Your task to perform on an android device: change keyboard looks Image 0: 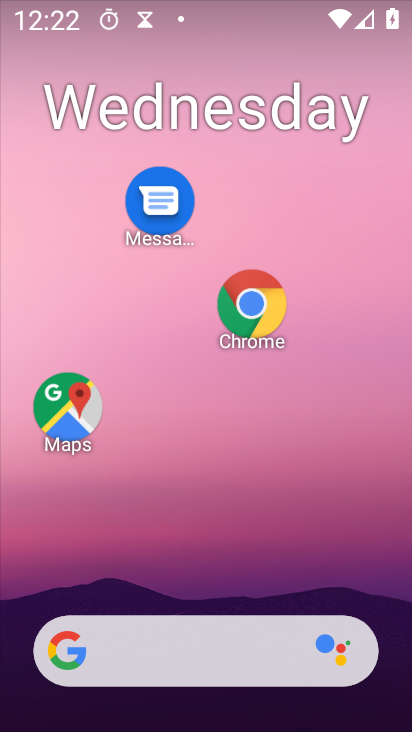
Step 0: drag from (242, 407) to (336, 123)
Your task to perform on an android device: change keyboard looks Image 1: 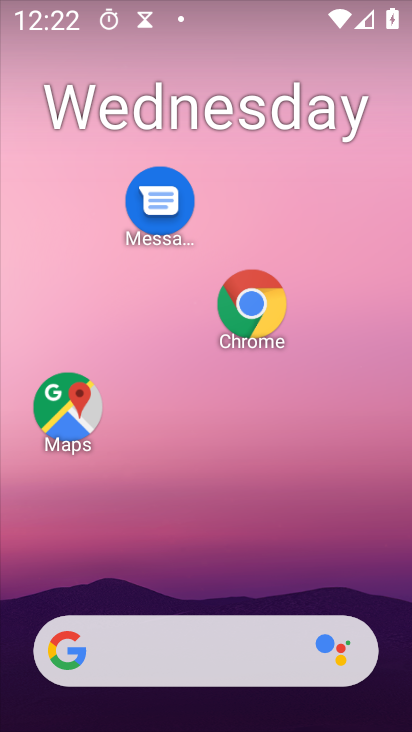
Step 1: drag from (313, 370) to (327, 169)
Your task to perform on an android device: change keyboard looks Image 2: 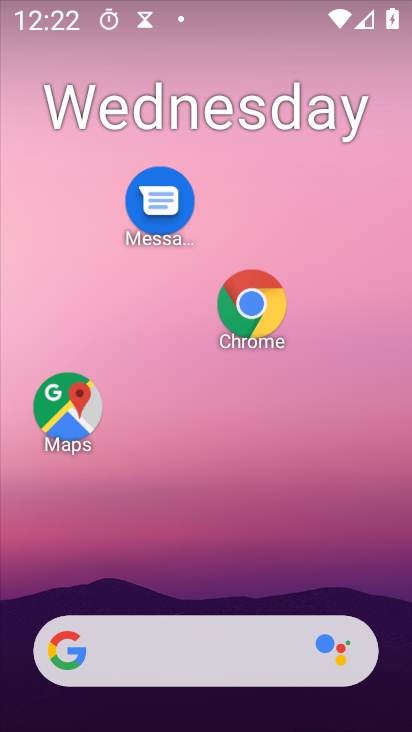
Step 2: drag from (345, 264) to (363, 177)
Your task to perform on an android device: change keyboard looks Image 3: 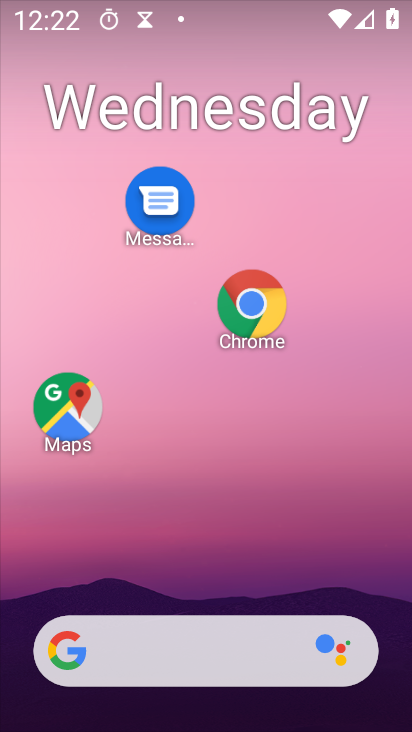
Step 3: drag from (258, 501) to (290, 228)
Your task to perform on an android device: change keyboard looks Image 4: 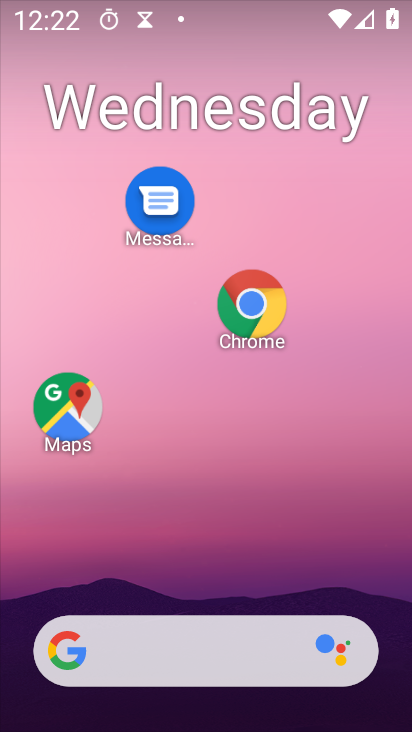
Step 4: drag from (290, 418) to (300, 217)
Your task to perform on an android device: change keyboard looks Image 5: 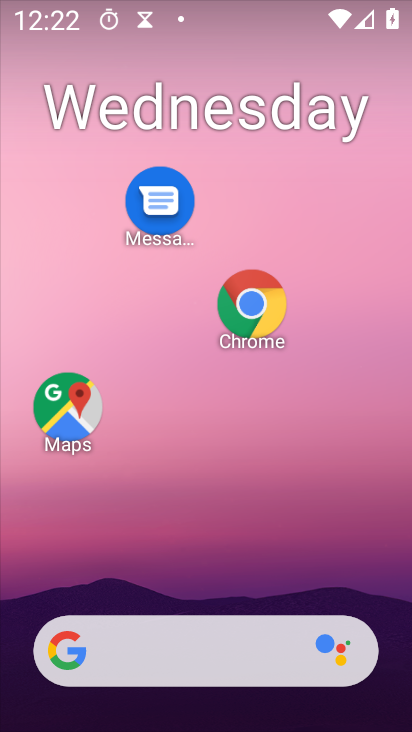
Step 5: drag from (238, 584) to (282, 145)
Your task to perform on an android device: change keyboard looks Image 6: 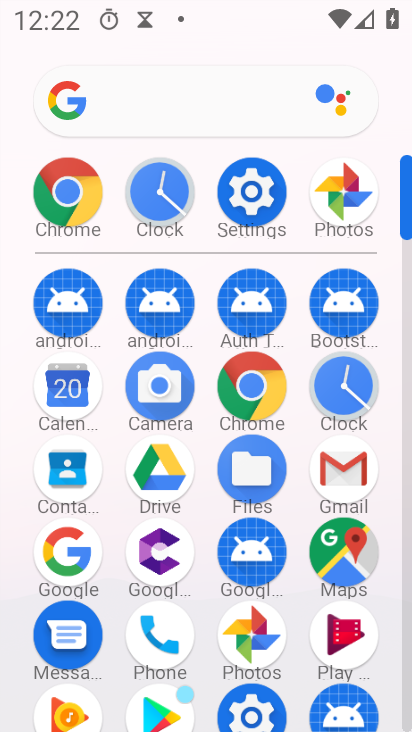
Step 6: click (255, 189)
Your task to perform on an android device: change keyboard looks Image 7: 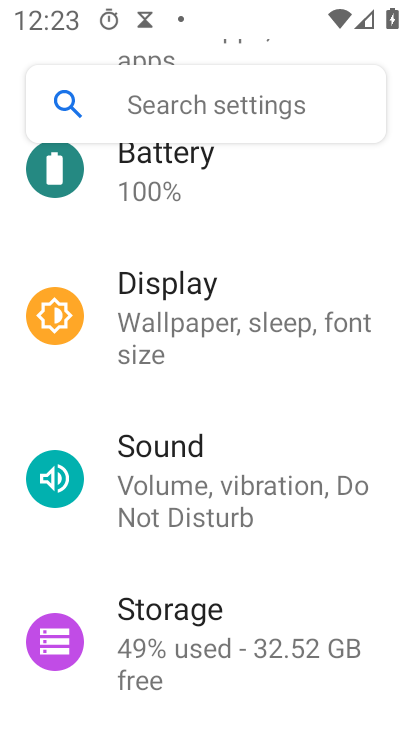
Step 7: drag from (244, 641) to (334, 198)
Your task to perform on an android device: change keyboard looks Image 8: 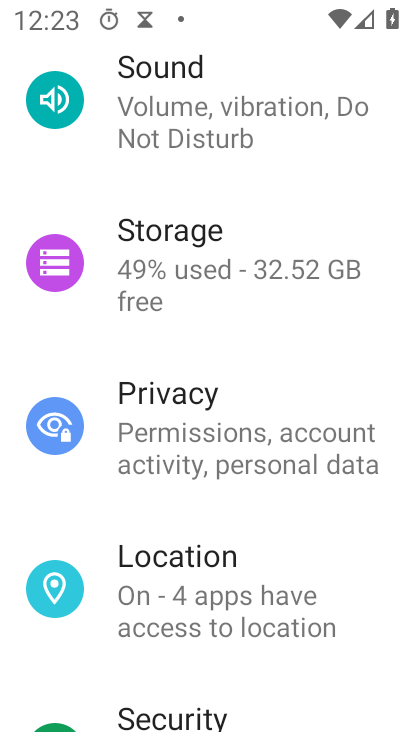
Step 8: drag from (211, 605) to (303, 105)
Your task to perform on an android device: change keyboard looks Image 9: 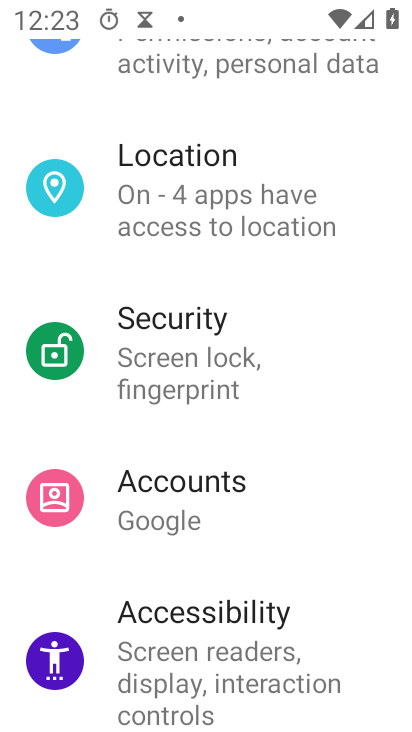
Step 9: click (201, 662)
Your task to perform on an android device: change keyboard looks Image 10: 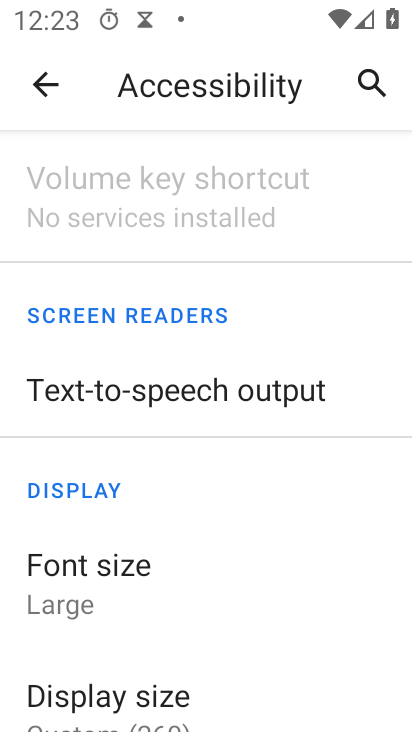
Step 10: click (39, 72)
Your task to perform on an android device: change keyboard looks Image 11: 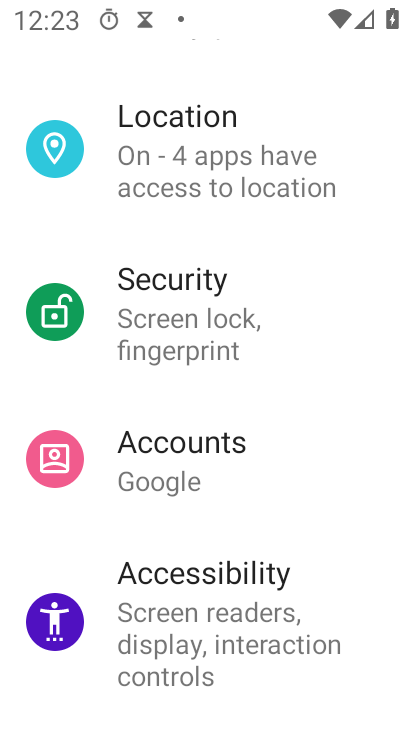
Step 11: drag from (175, 574) to (269, 122)
Your task to perform on an android device: change keyboard looks Image 12: 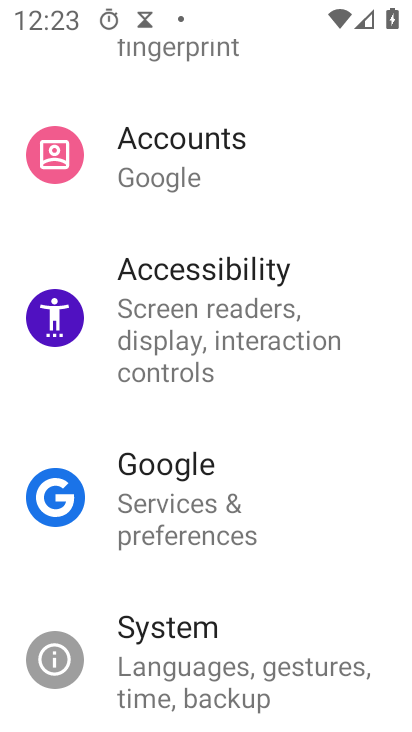
Step 12: click (168, 686)
Your task to perform on an android device: change keyboard looks Image 13: 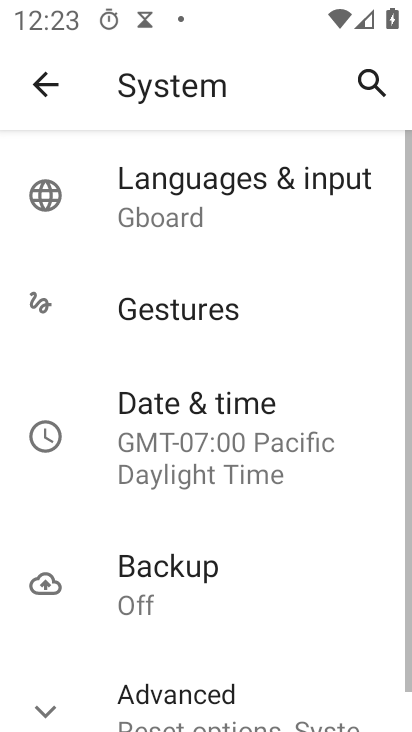
Step 13: click (220, 203)
Your task to perform on an android device: change keyboard looks Image 14: 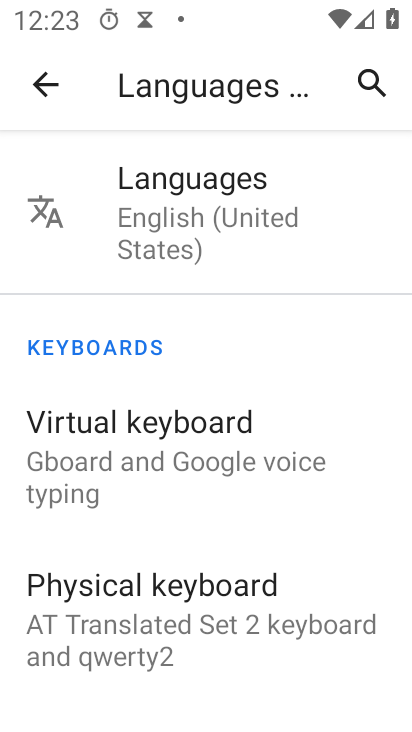
Step 14: click (171, 447)
Your task to perform on an android device: change keyboard looks Image 15: 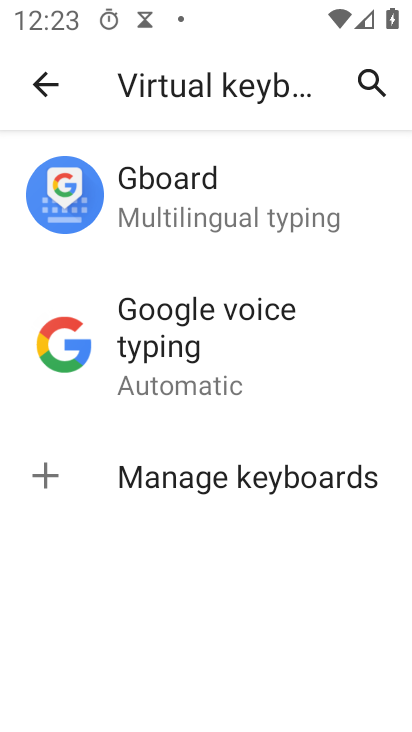
Step 15: click (200, 311)
Your task to perform on an android device: change keyboard looks Image 16: 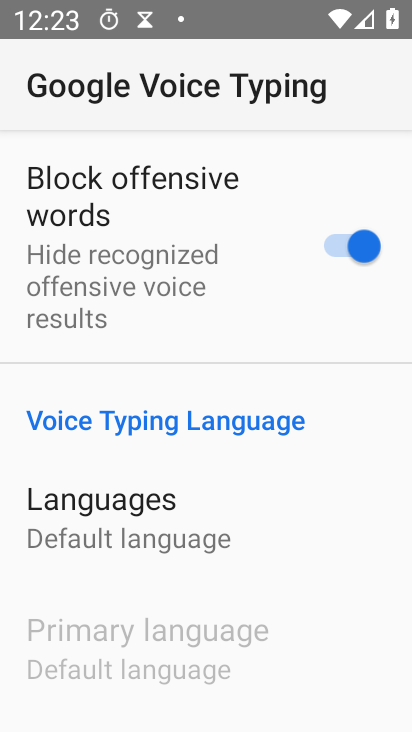
Step 16: drag from (135, 580) to (197, 266)
Your task to perform on an android device: change keyboard looks Image 17: 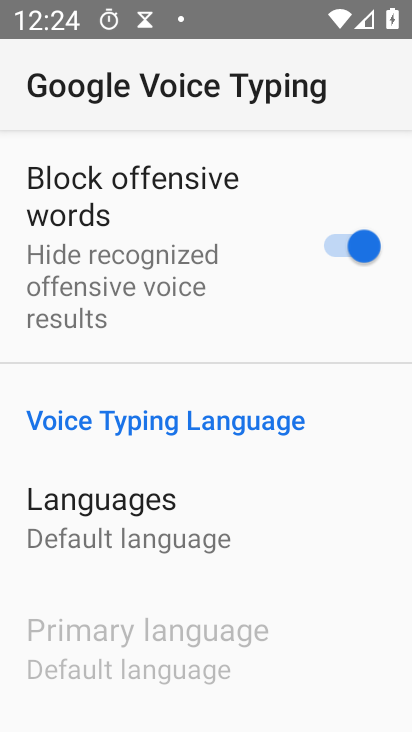
Step 17: click (244, 519)
Your task to perform on an android device: change keyboard looks Image 18: 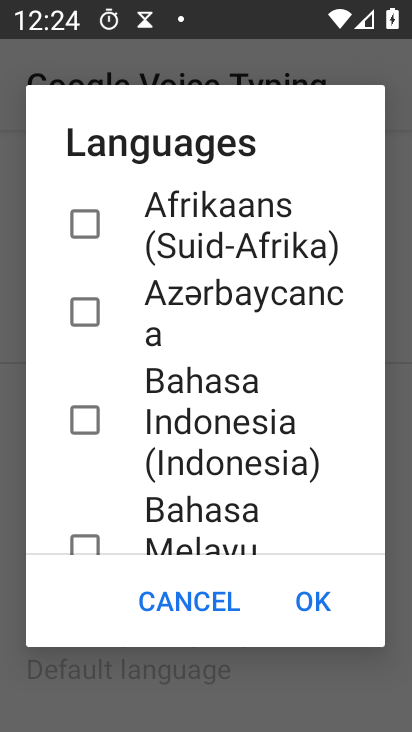
Step 18: press back button
Your task to perform on an android device: change keyboard looks Image 19: 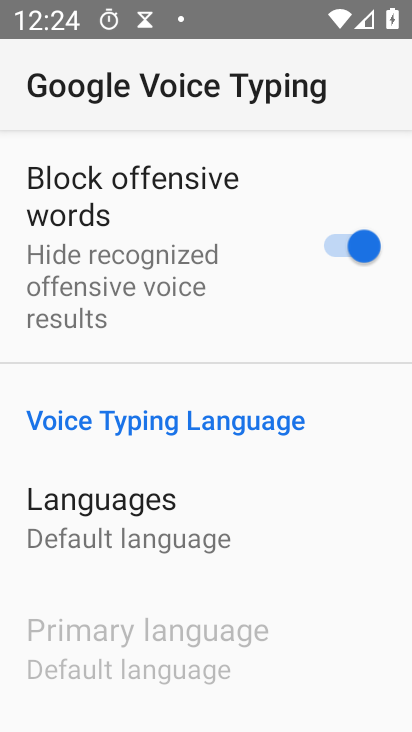
Step 19: press back button
Your task to perform on an android device: change keyboard looks Image 20: 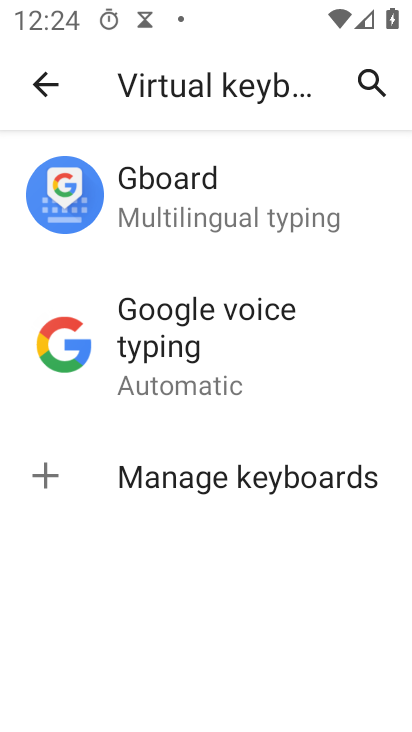
Step 20: click (183, 191)
Your task to perform on an android device: change keyboard looks Image 21: 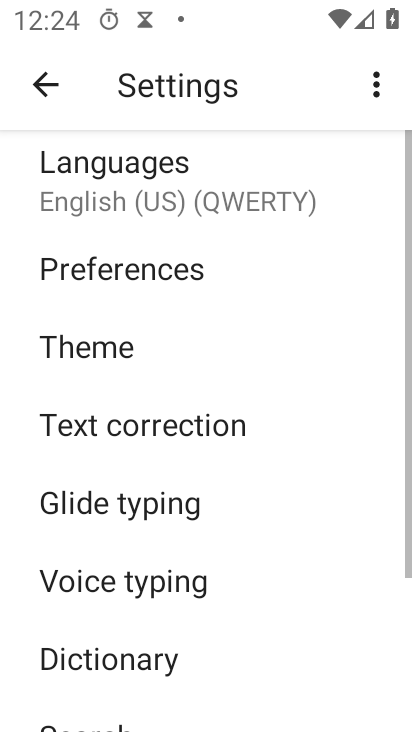
Step 21: click (149, 347)
Your task to perform on an android device: change keyboard looks Image 22: 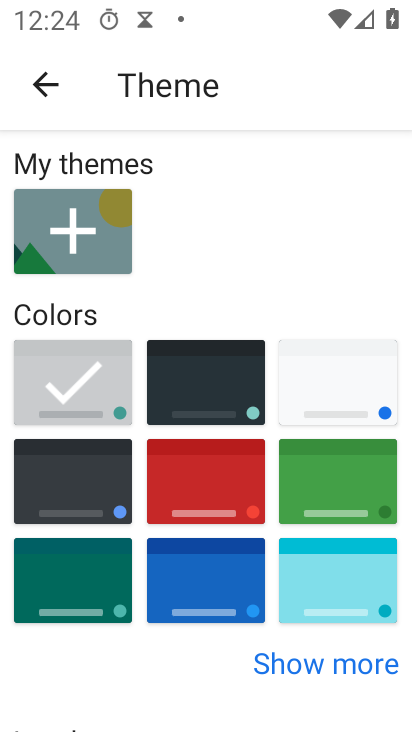
Step 22: click (220, 488)
Your task to perform on an android device: change keyboard looks Image 23: 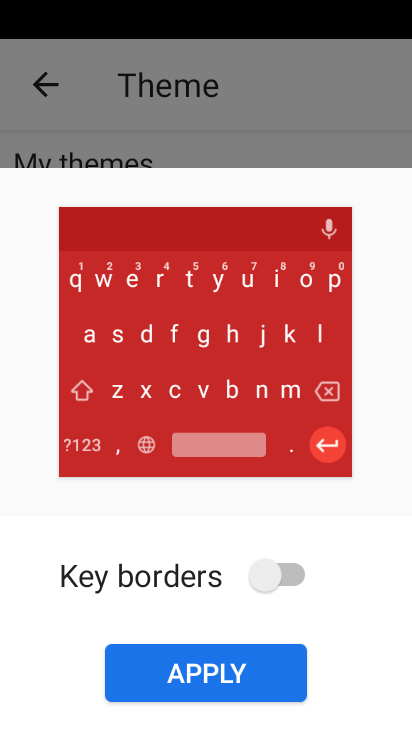
Step 23: click (237, 664)
Your task to perform on an android device: change keyboard looks Image 24: 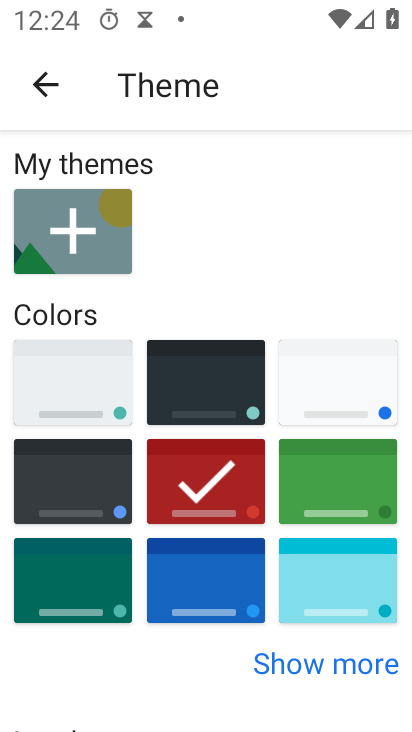
Step 24: task complete